Your task to perform on an android device: Open sound settings Image 0: 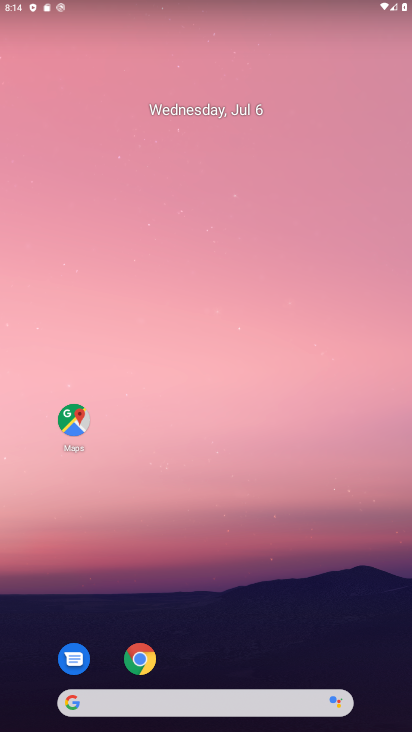
Step 0: drag from (232, 618) to (238, 189)
Your task to perform on an android device: Open sound settings Image 1: 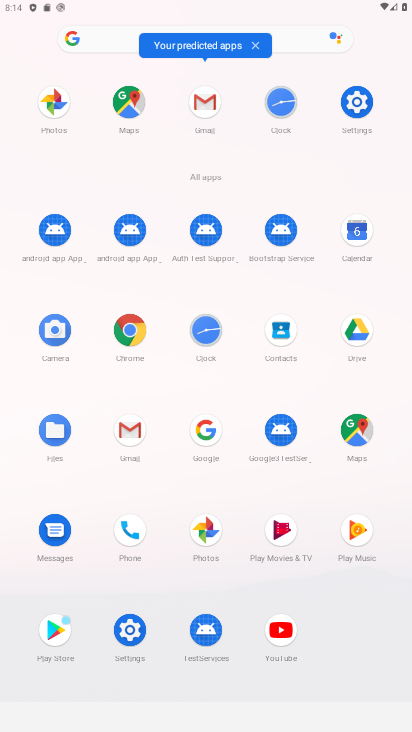
Step 1: click (361, 100)
Your task to perform on an android device: Open sound settings Image 2: 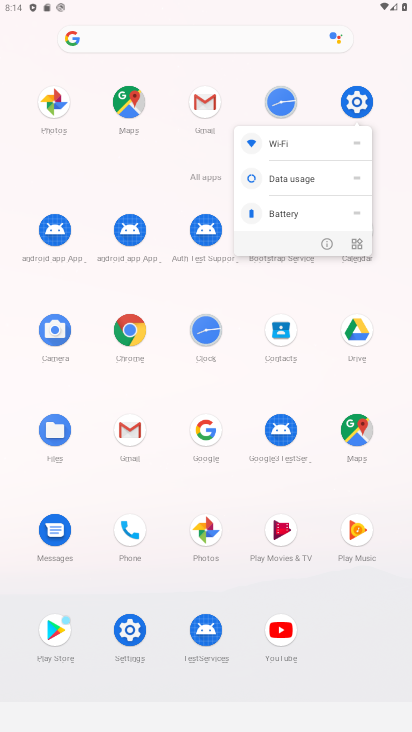
Step 2: click (360, 100)
Your task to perform on an android device: Open sound settings Image 3: 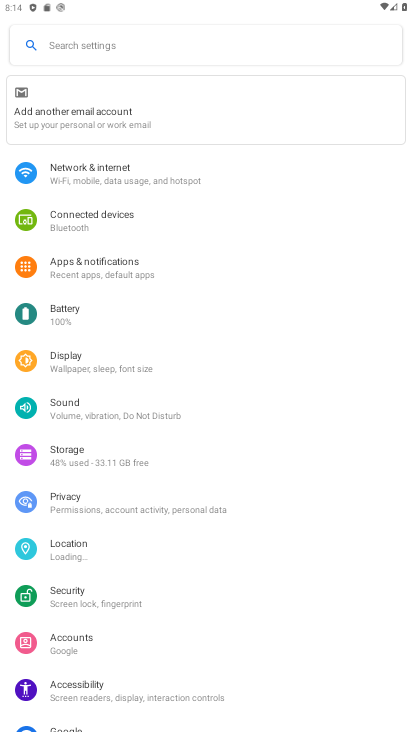
Step 3: click (112, 413)
Your task to perform on an android device: Open sound settings Image 4: 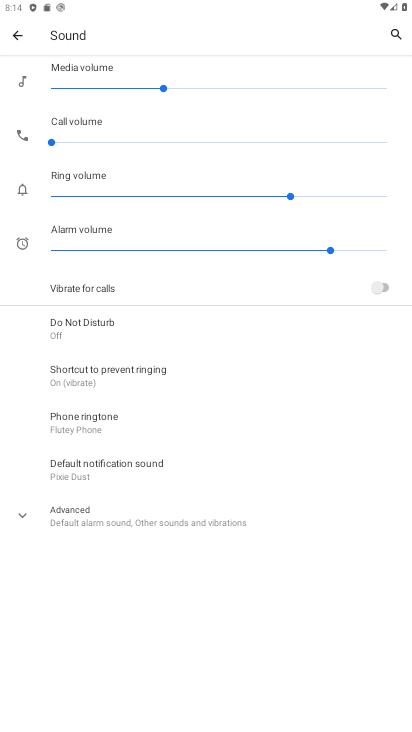
Step 4: task complete